Your task to perform on an android device: Open wifi settings Image 0: 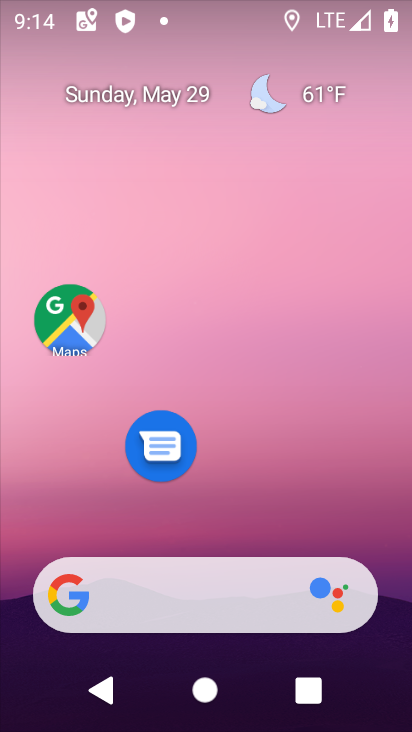
Step 0: drag from (203, 502) to (158, 203)
Your task to perform on an android device: Open wifi settings Image 1: 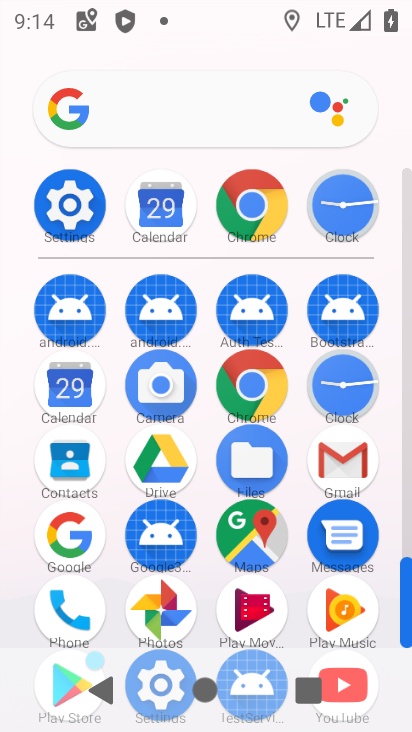
Step 1: click (47, 211)
Your task to perform on an android device: Open wifi settings Image 2: 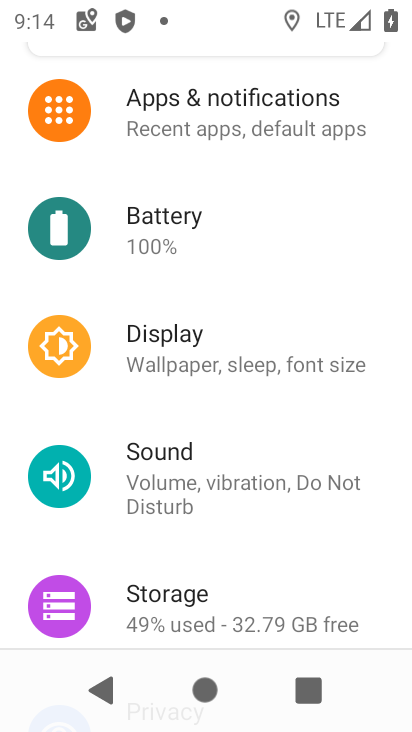
Step 2: drag from (179, 174) to (212, 599)
Your task to perform on an android device: Open wifi settings Image 3: 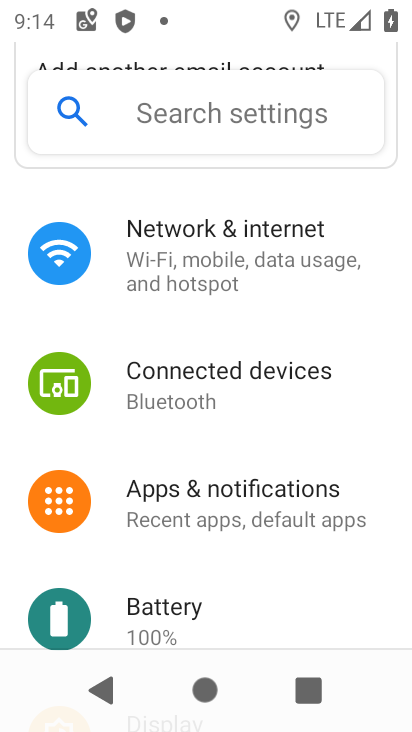
Step 3: click (217, 250)
Your task to perform on an android device: Open wifi settings Image 4: 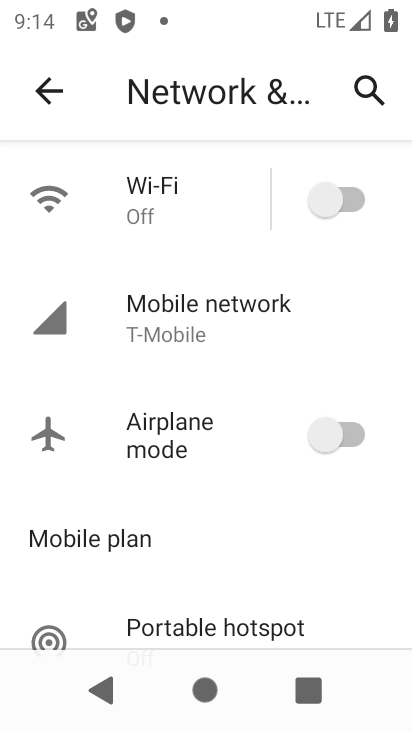
Step 4: click (178, 188)
Your task to perform on an android device: Open wifi settings Image 5: 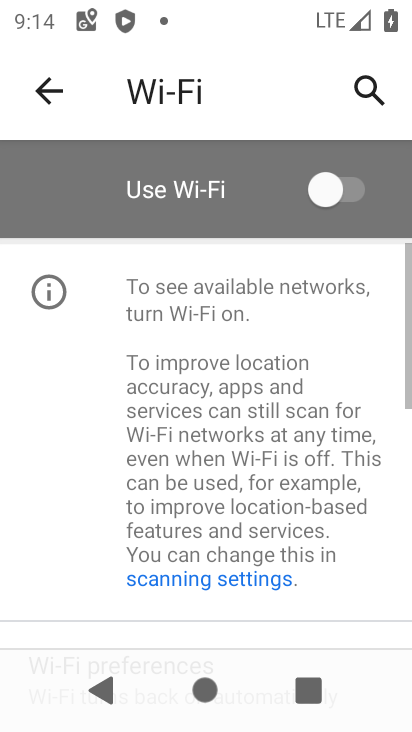
Step 5: task complete